Your task to perform on an android device: turn off improve location accuracy Image 0: 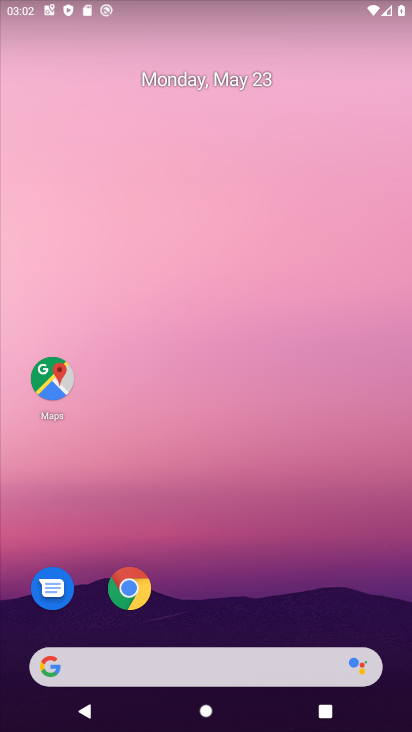
Step 0: drag from (235, 729) to (235, 107)
Your task to perform on an android device: turn off improve location accuracy Image 1: 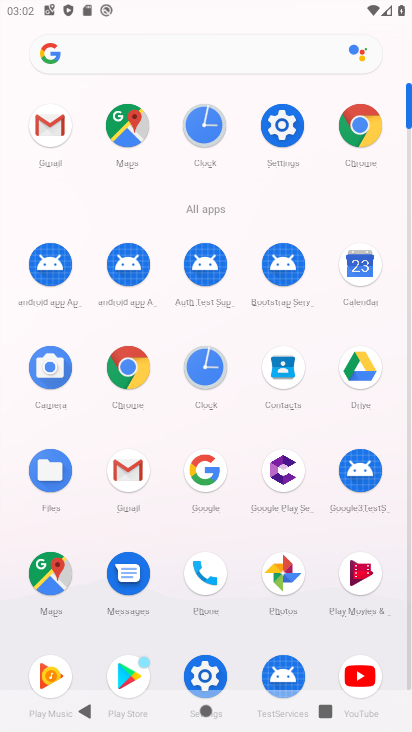
Step 1: click (278, 122)
Your task to perform on an android device: turn off improve location accuracy Image 2: 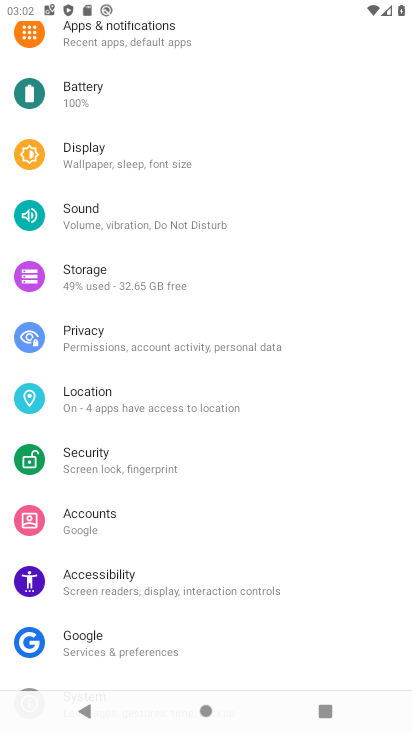
Step 2: click (91, 404)
Your task to perform on an android device: turn off improve location accuracy Image 3: 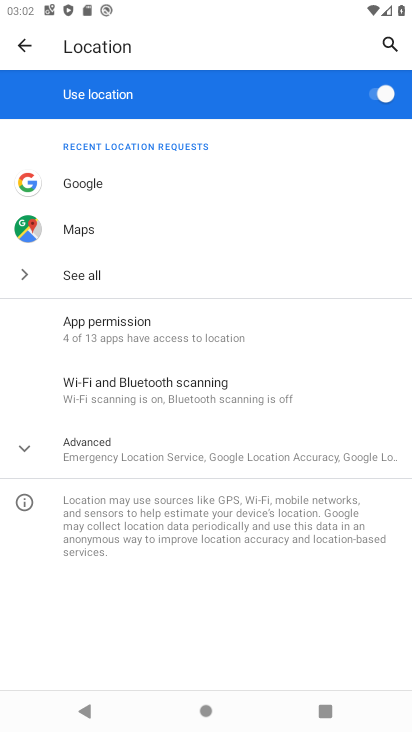
Step 3: click (96, 450)
Your task to perform on an android device: turn off improve location accuracy Image 4: 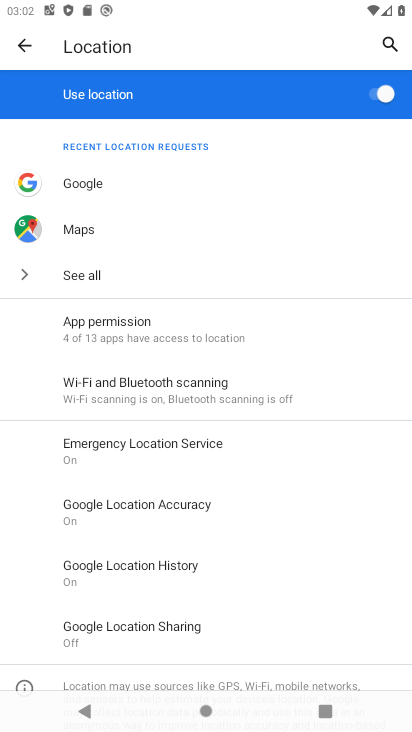
Step 4: click (148, 504)
Your task to perform on an android device: turn off improve location accuracy Image 5: 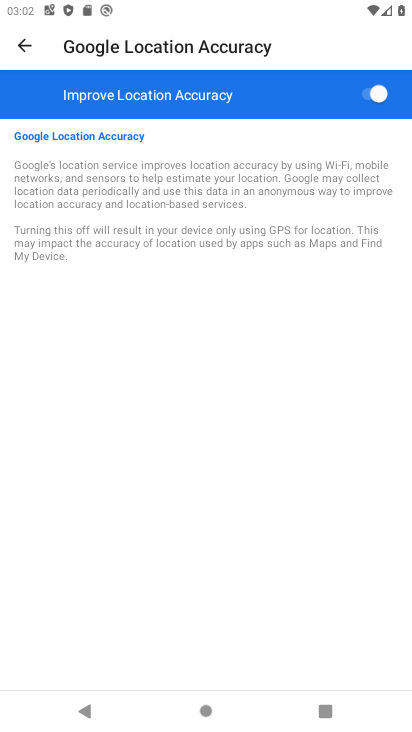
Step 5: click (369, 90)
Your task to perform on an android device: turn off improve location accuracy Image 6: 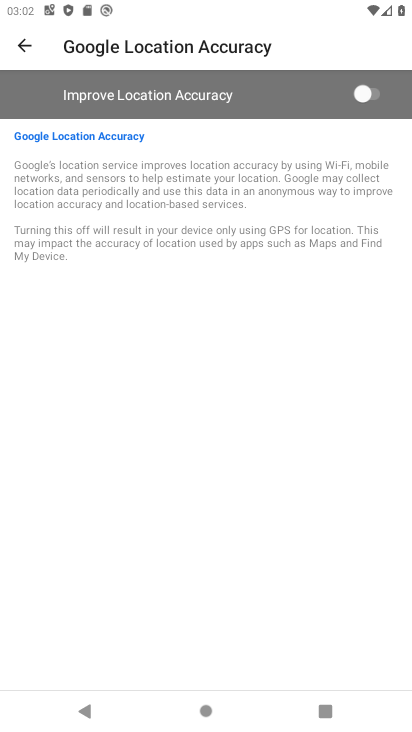
Step 6: task complete